Your task to perform on an android device: change the clock style Image 0: 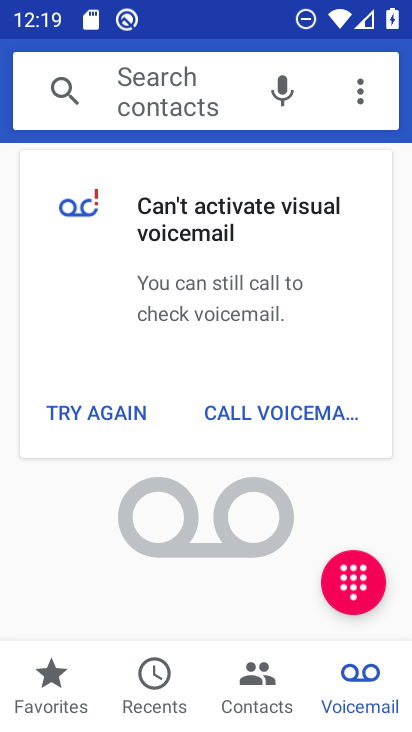
Step 0: press home button
Your task to perform on an android device: change the clock style Image 1: 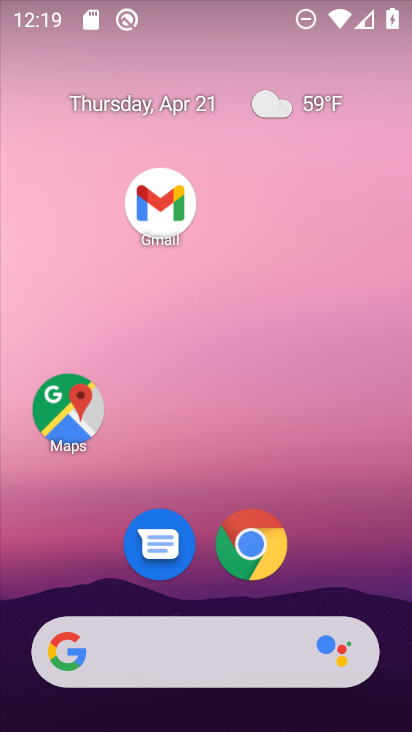
Step 1: drag from (274, 595) to (262, 80)
Your task to perform on an android device: change the clock style Image 2: 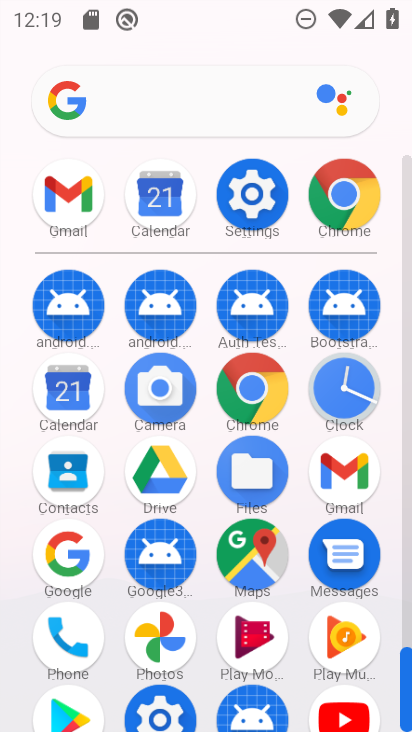
Step 2: click (329, 399)
Your task to perform on an android device: change the clock style Image 3: 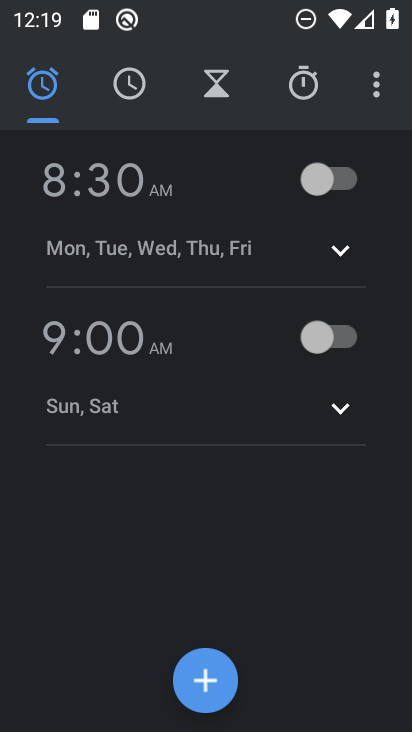
Step 3: click (384, 95)
Your task to perform on an android device: change the clock style Image 4: 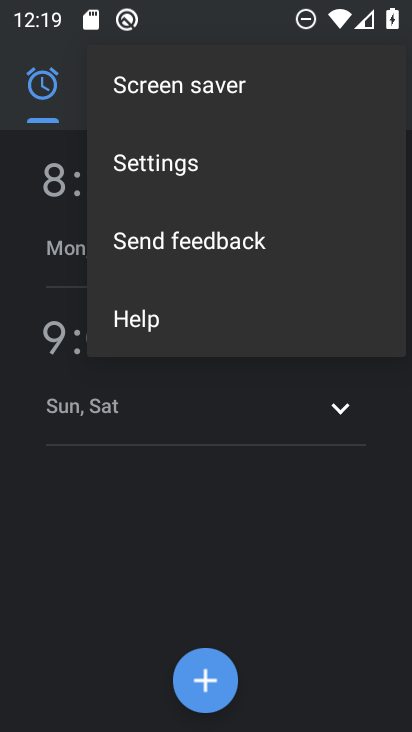
Step 4: click (134, 160)
Your task to perform on an android device: change the clock style Image 5: 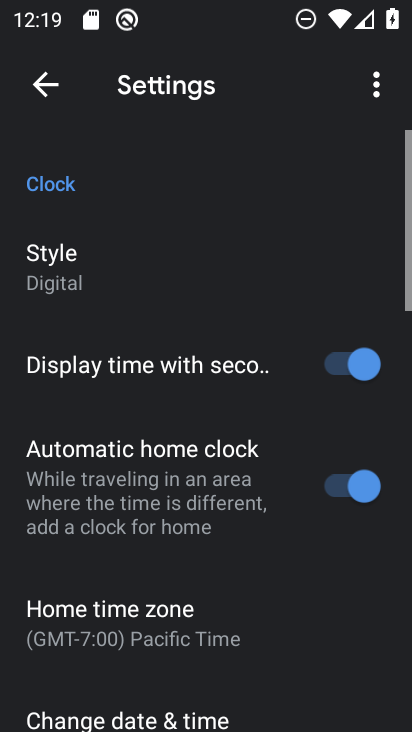
Step 5: click (108, 310)
Your task to perform on an android device: change the clock style Image 6: 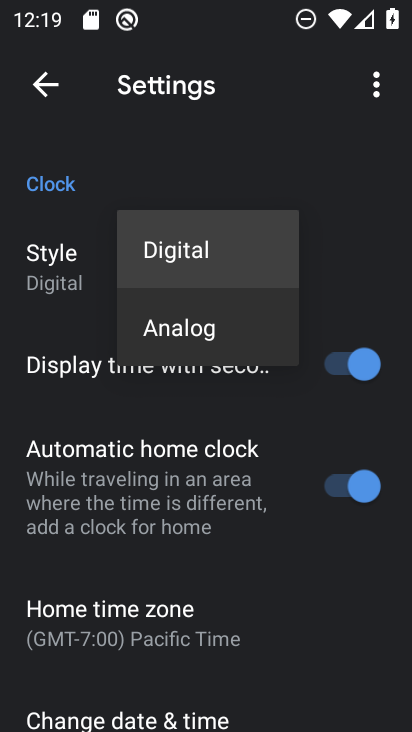
Step 6: click (161, 329)
Your task to perform on an android device: change the clock style Image 7: 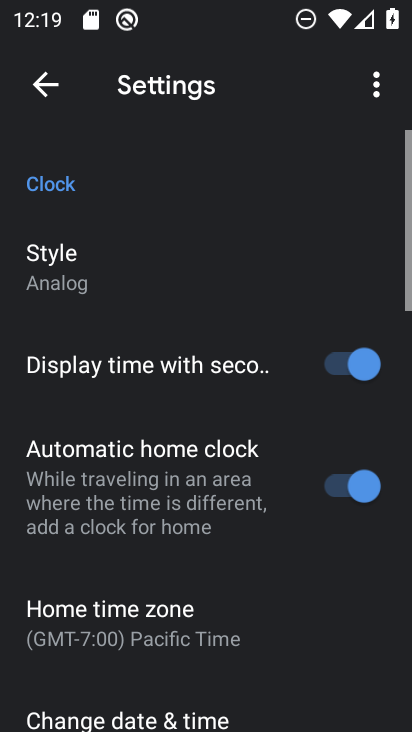
Step 7: task complete